Your task to perform on an android device: check storage Image 0: 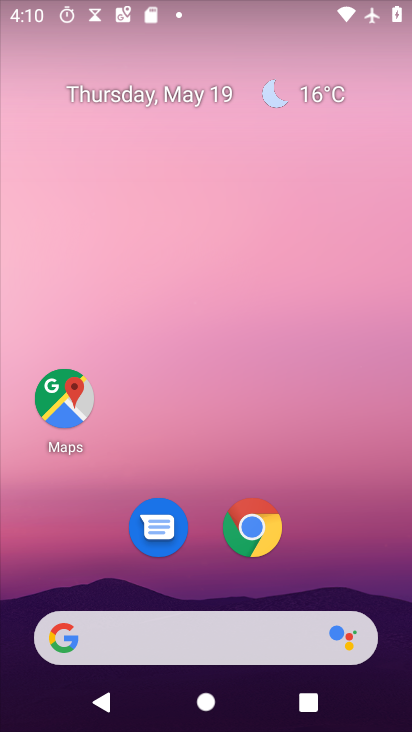
Step 0: drag from (325, 435) to (219, 56)
Your task to perform on an android device: check storage Image 1: 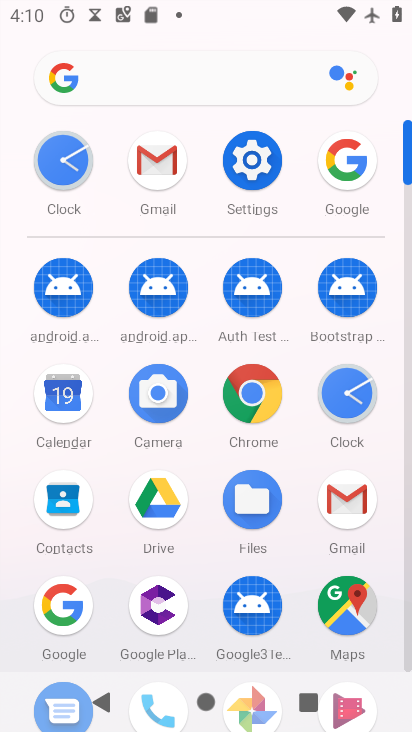
Step 1: click (236, 168)
Your task to perform on an android device: check storage Image 2: 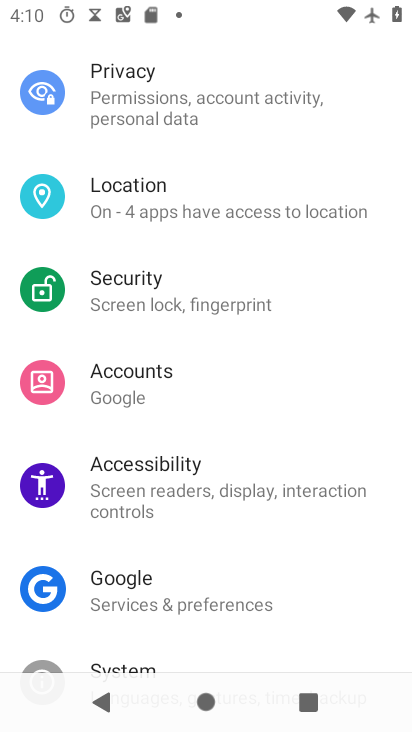
Step 2: drag from (292, 494) to (248, 127)
Your task to perform on an android device: check storage Image 3: 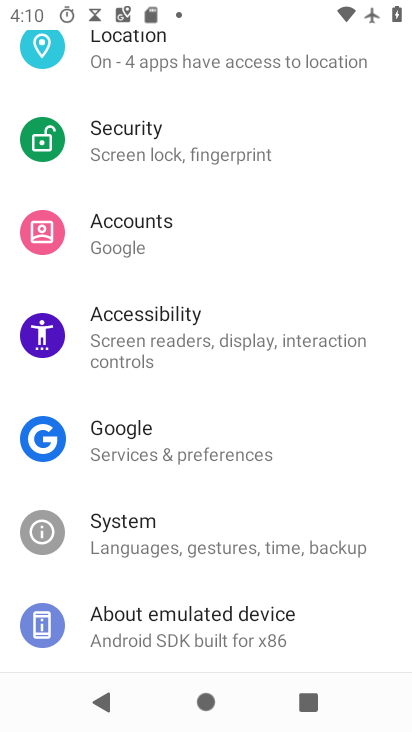
Step 3: drag from (255, 469) to (235, 146)
Your task to perform on an android device: check storage Image 4: 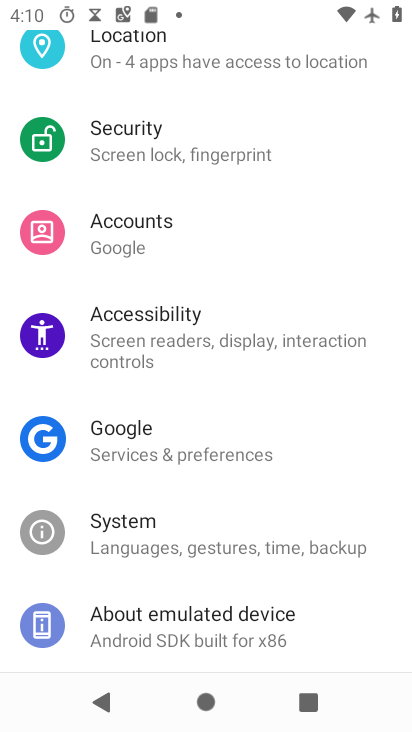
Step 4: drag from (253, 269) to (228, 691)
Your task to perform on an android device: check storage Image 5: 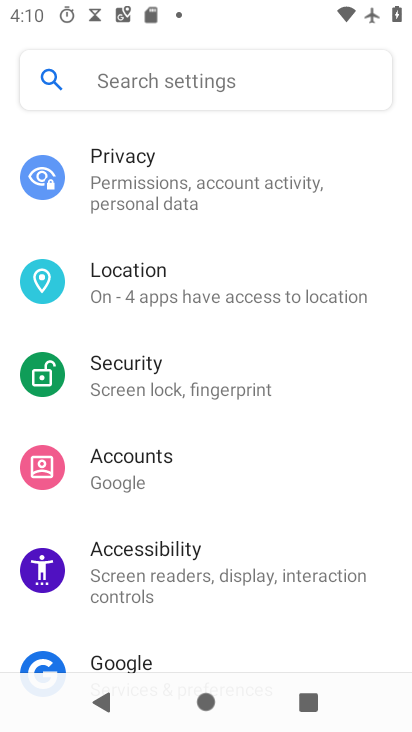
Step 5: drag from (249, 192) to (183, 685)
Your task to perform on an android device: check storage Image 6: 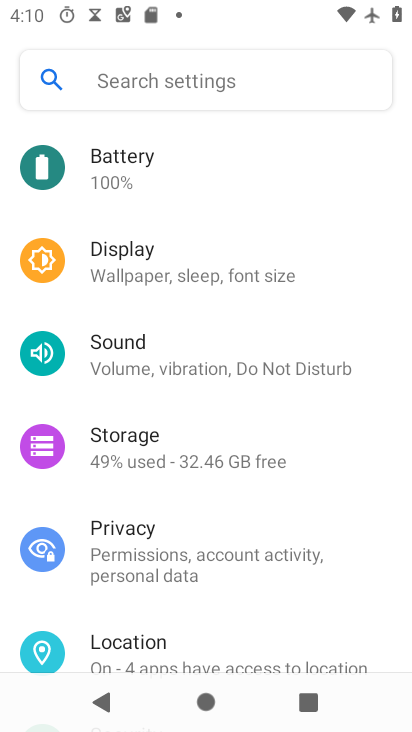
Step 6: click (210, 438)
Your task to perform on an android device: check storage Image 7: 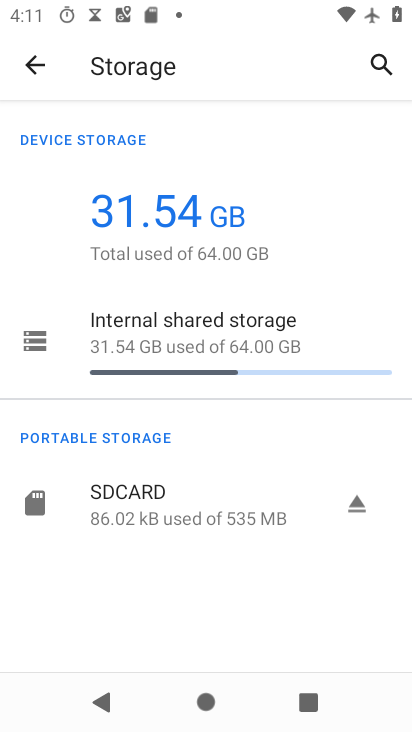
Step 7: task complete